Your task to perform on an android device: change notification settings in the gmail app Image 0: 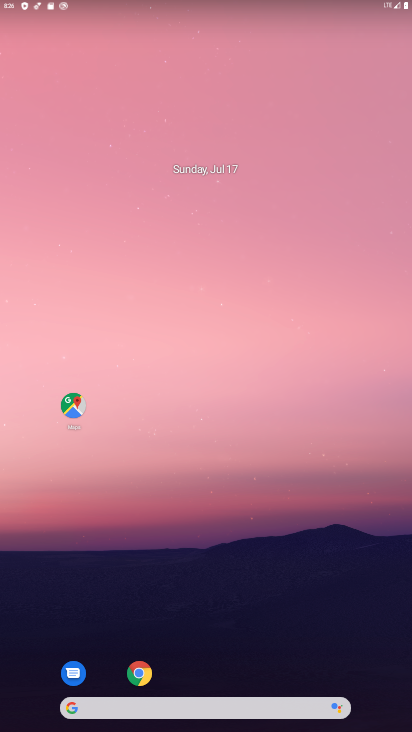
Step 0: drag from (316, 607) to (248, 100)
Your task to perform on an android device: change notification settings in the gmail app Image 1: 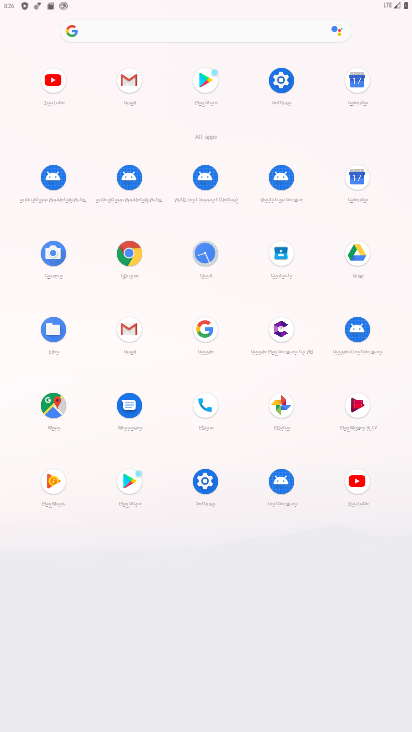
Step 1: click (137, 335)
Your task to perform on an android device: change notification settings in the gmail app Image 2: 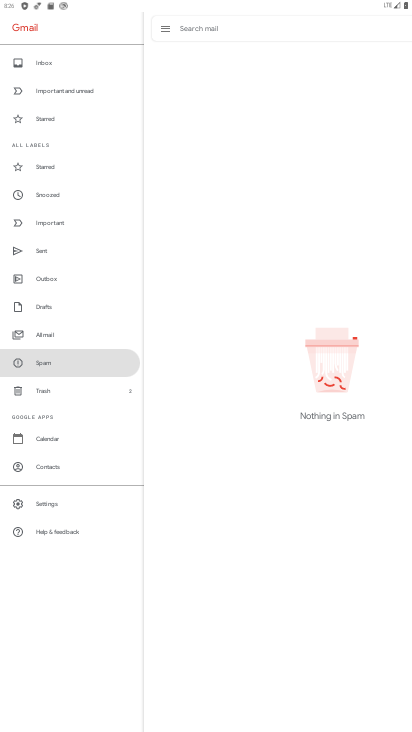
Step 2: click (176, 29)
Your task to perform on an android device: change notification settings in the gmail app Image 3: 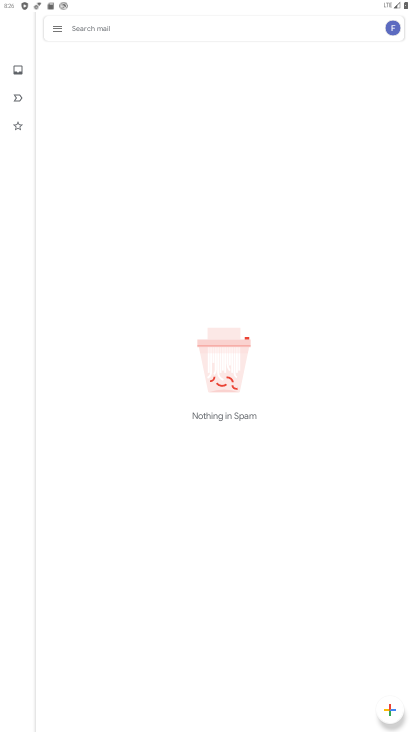
Step 3: click (54, 28)
Your task to perform on an android device: change notification settings in the gmail app Image 4: 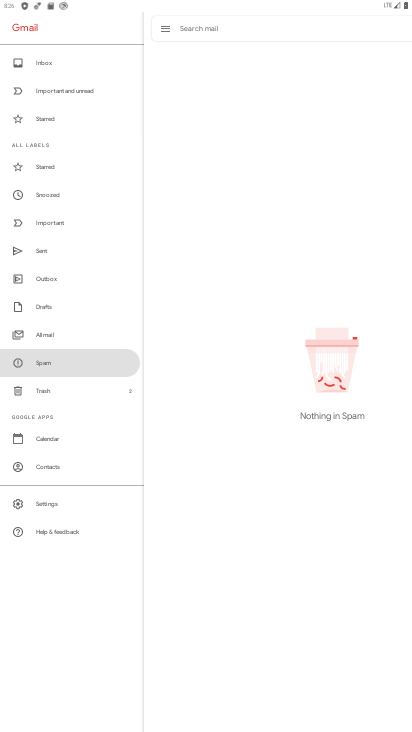
Step 4: click (72, 500)
Your task to perform on an android device: change notification settings in the gmail app Image 5: 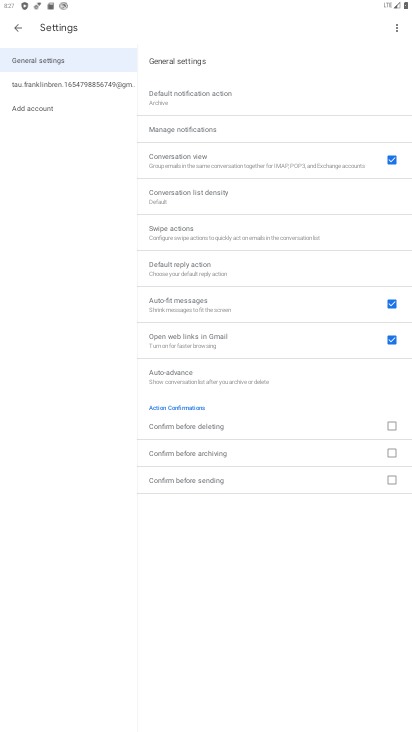
Step 5: click (47, 84)
Your task to perform on an android device: change notification settings in the gmail app Image 6: 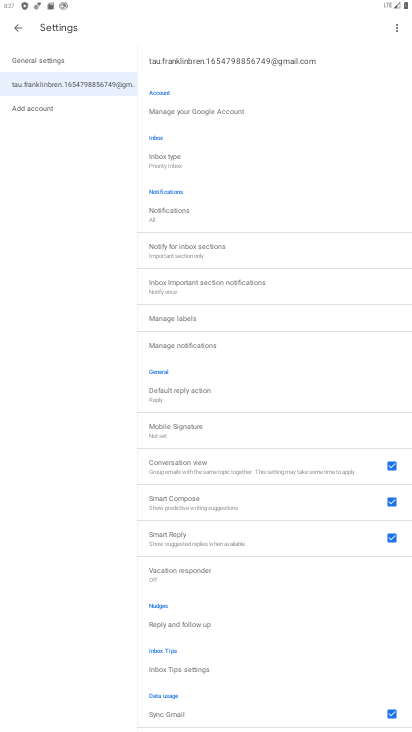
Step 6: click (191, 211)
Your task to perform on an android device: change notification settings in the gmail app Image 7: 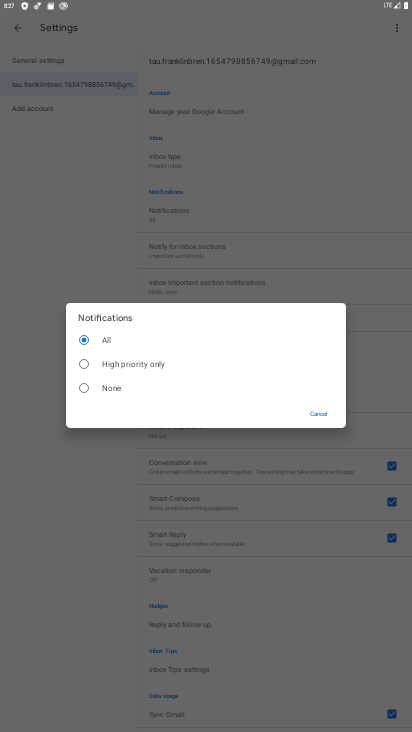
Step 7: click (131, 360)
Your task to perform on an android device: change notification settings in the gmail app Image 8: 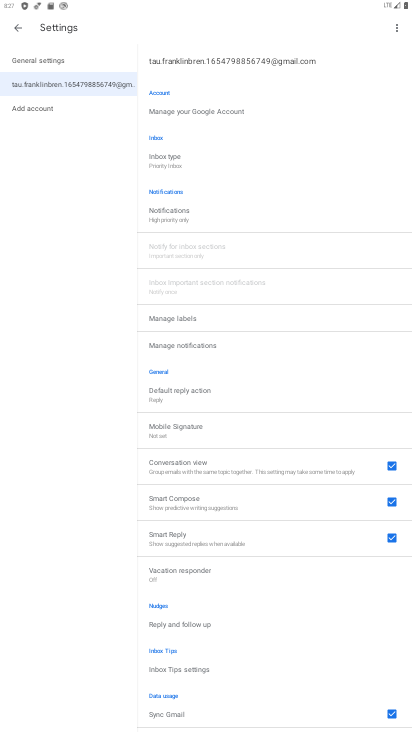
Step 8: click (236, 342)
Your task to perform on an android device: change notification settings in the gmail app Image 9: 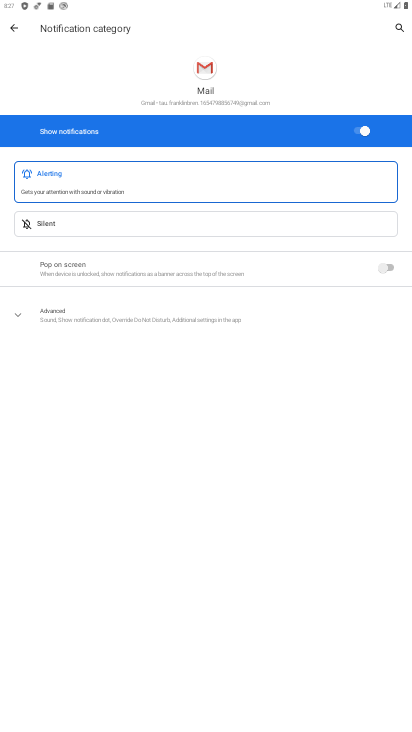
Step 9: click (225, 222)
Your task to perform on an android device: change notification settings in the gmail app Image 10: 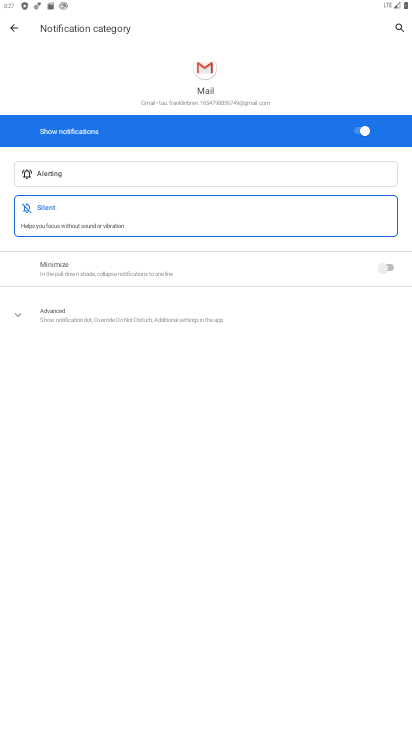
Step 10: task complete